Your task to perform on an android device: Do I have any events this weekend? Image 0: 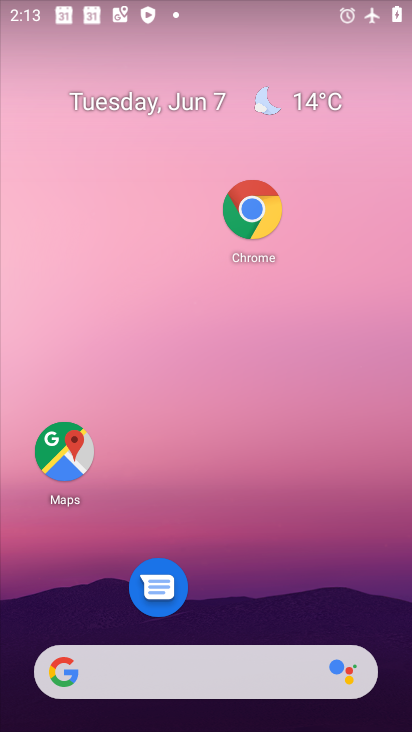
Step 0: drag from (287, 578) to (338, 58)
Your task to perform on an android device: Do I have any events this weekend? Image 1: 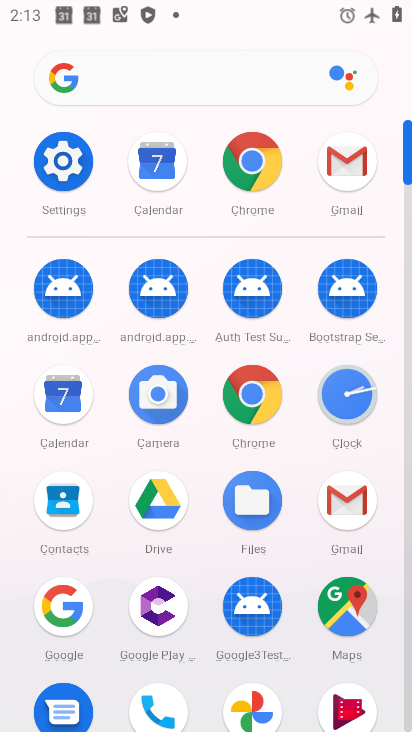
Step 1: click (70, 390)
Your task to perform on an android device: Do I have any events this weekend? Image 2: 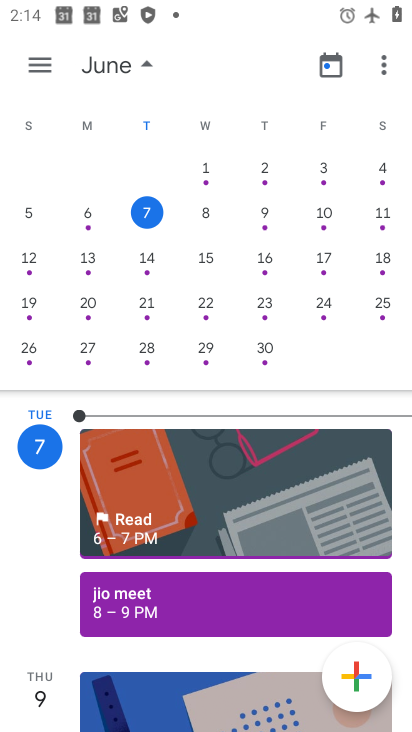
Step 2: click (384, 230)
Your task to perform on an android device: Do I have any events this weekend? Image 3: 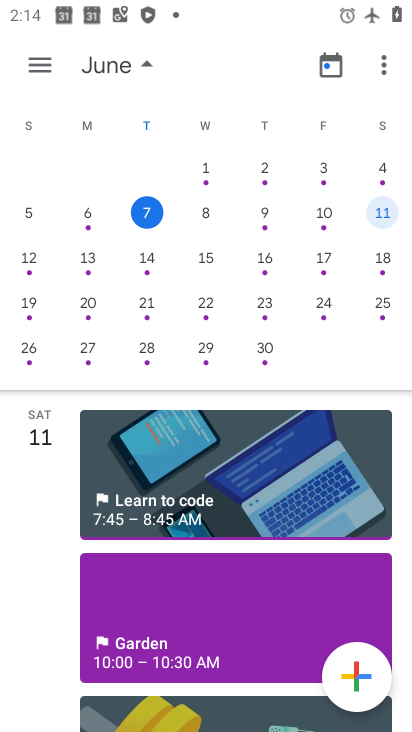
Step 3: task complete